Your task to perform on an android device: Open the calendar app, open the side menu, and click the "Day" option Image 0: 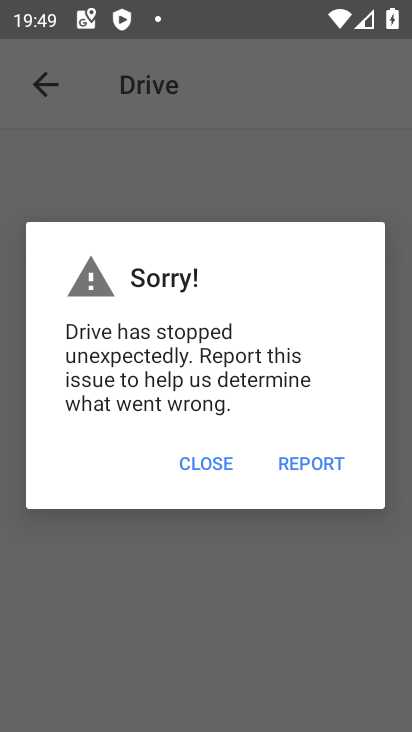
Step 0: press home button
Your task to perform on an android device: Open the calendar app, open the side menu, and click the "Day" option Image 1: 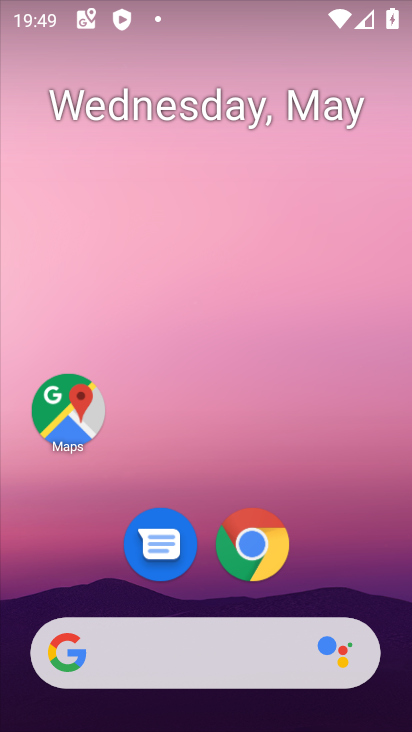
Step 1: click (139, 118)
Your task to perform on an android device: Open the calendar app, open the side menu, and click the "Day" option Image 2: 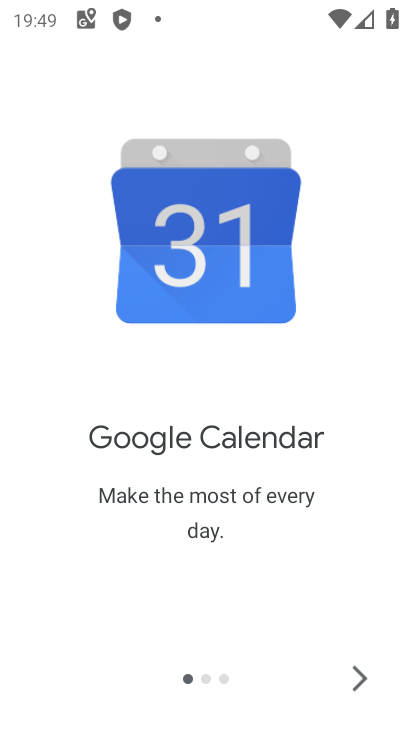
Step 2: click (139, 118)
Your task to perform on an android device: Open the calendar app, open the side menu, and click the "Day" option Image 3: 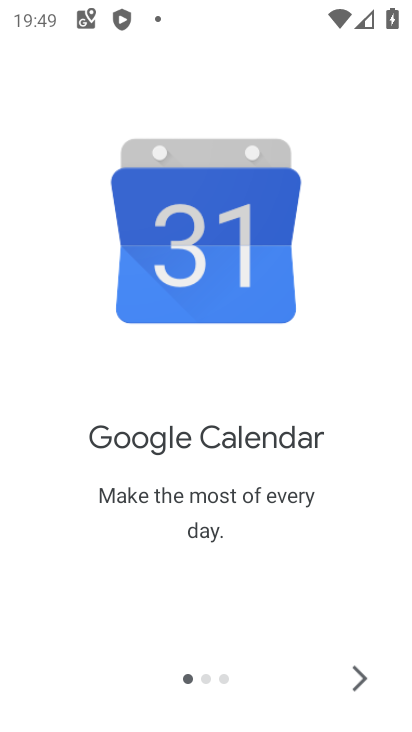
Step 3: click (362, 672)
Your task to perform on an android device: Open the calendar app, open the side menu, and click the "Day" option Image 4: 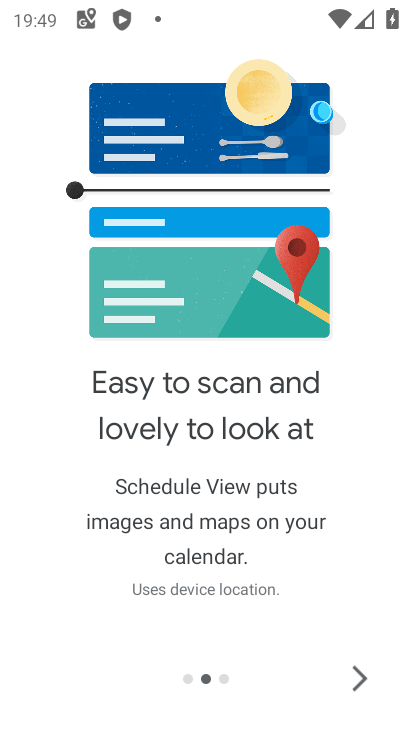
Step 4: click (362, 672)
Your task to perform on an android device: Open the calendar app, open the side menu, and click the "Day" option Image 5: 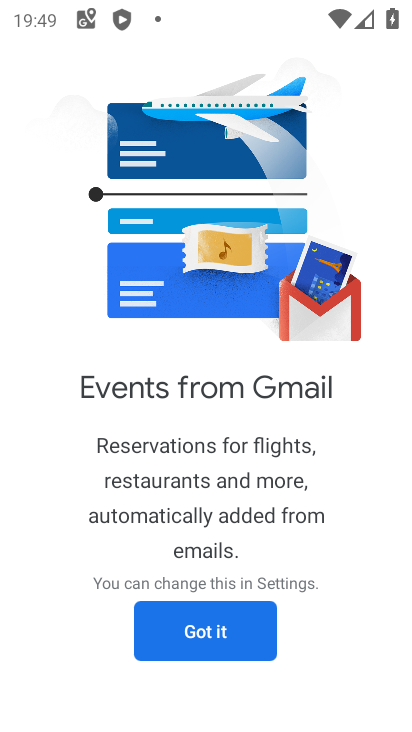
Step 5: click (218, 651)
Your task to perform on an android device: Open the calendar app, open the side menu, and click the "Day" option Image 6: 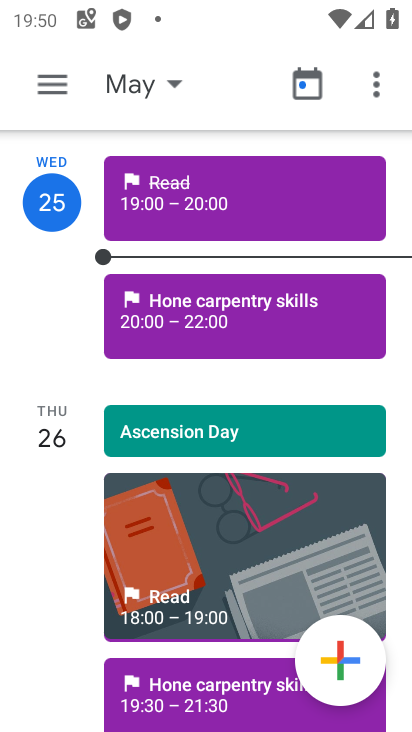
Step 6: click (49, 91)
Your task to perform on an android device: Open the calendar app, open the side menu, and click the "Day" option Image 7: 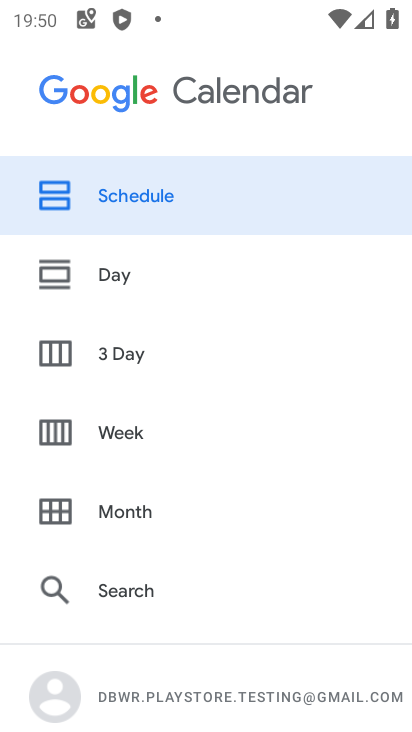
Step 7: click (117, 279)
Your task to perform on an android device: Open the calendar app, open the side menu, and click the "Day" option Image 8: 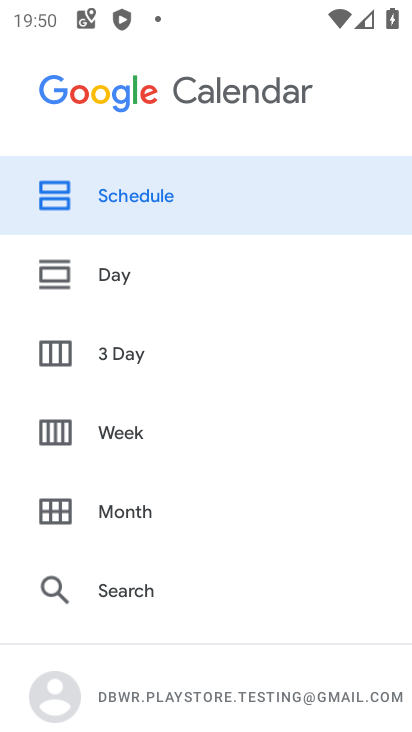
Step 8: click (202, 270)
Your task to perform on an android device: Open the calendar app, open the side menu, and click the "Day" option Image 9: 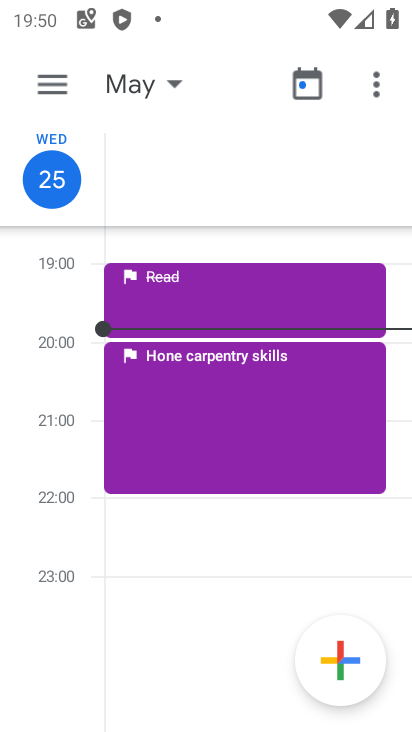
Step 9: task complete